Your task to perform on an android device: star an email in the gmail app Image 0: 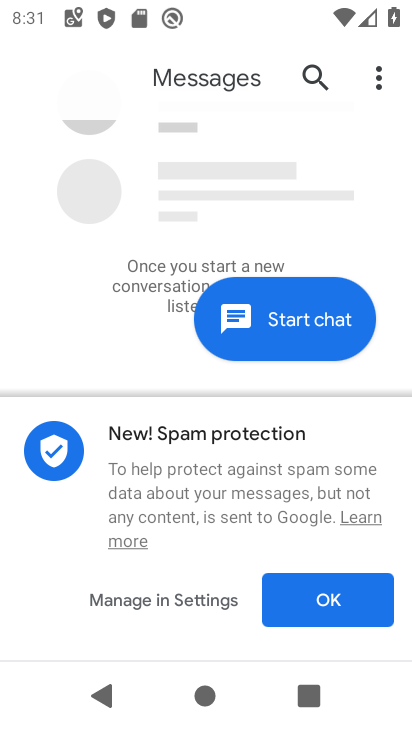
Step 0: press home button
Your task to perform on an android device: star an email in the gmail app Image 1: 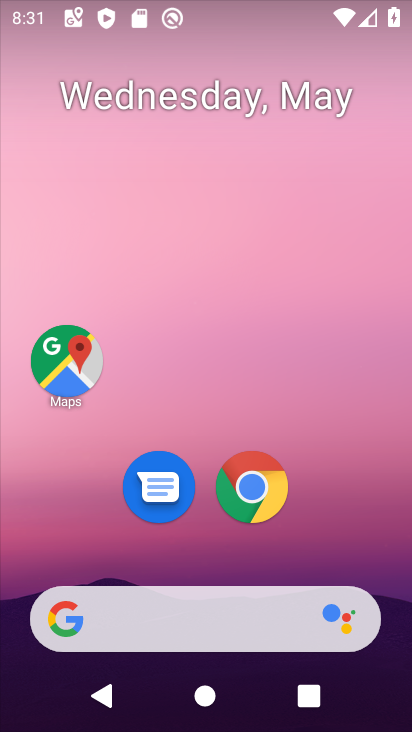
Step 1: drag from (351, 525) to (298, 155)
Your task to perform on an android device: star an email in the gmail app Image 2: 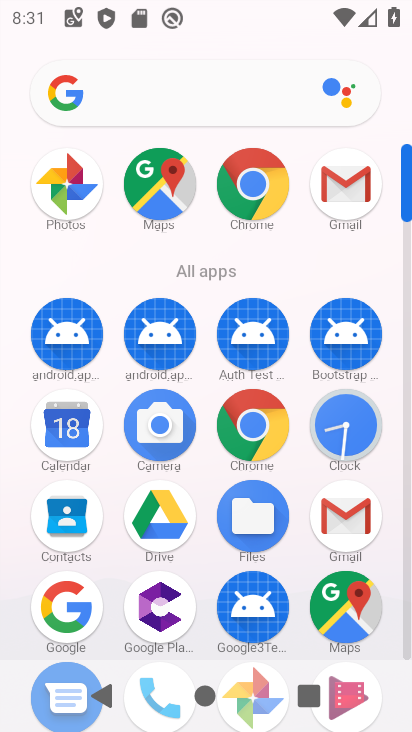
Step 2: click (341, 186)
Your task to perform on an android device: star an email in the gmail app Image 3: 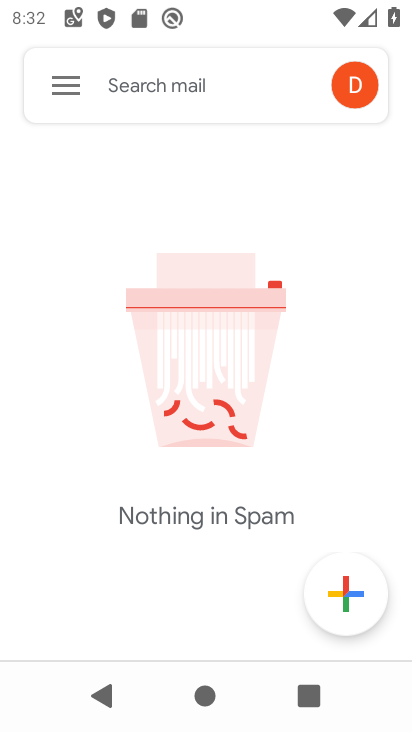
Step 3: click (63, 95)
Your task to perform on an android device: star an email in the gmail app Image 4: 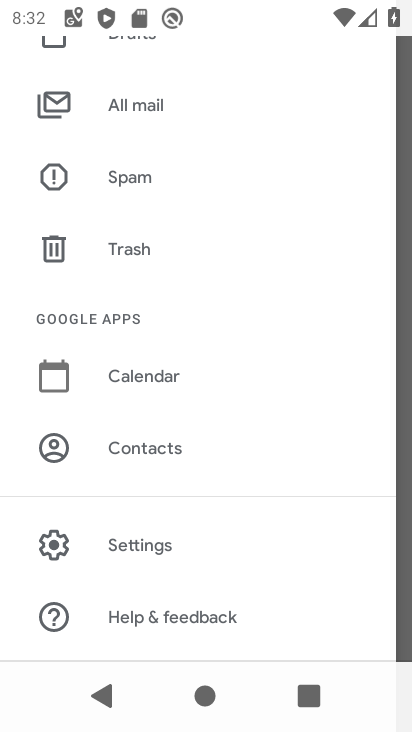
Step 4: click (143, 102)
Your task to perform on an android device: star an email in the gmail app Image 5: 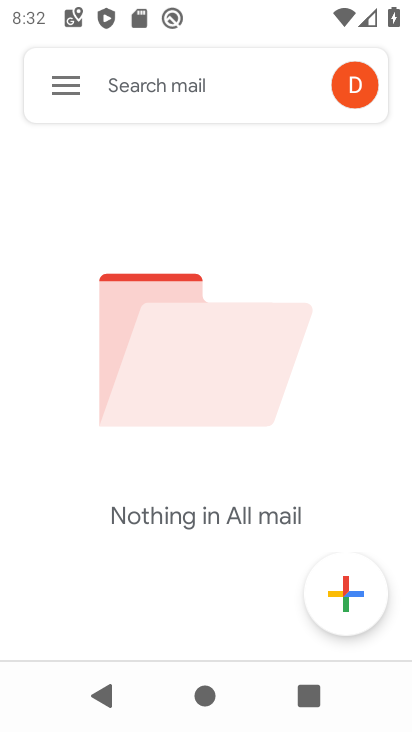
Step 5: task complete